Your task to perform on an android device: Go to accessibility settings Image 0: 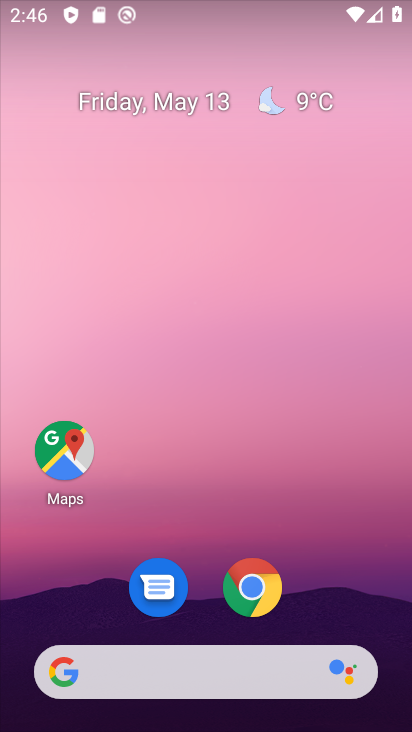
Step 0: drag from (322, 625) to (309, 248)
Your task to perform on an android device: Go to accessibility settings Image 1: 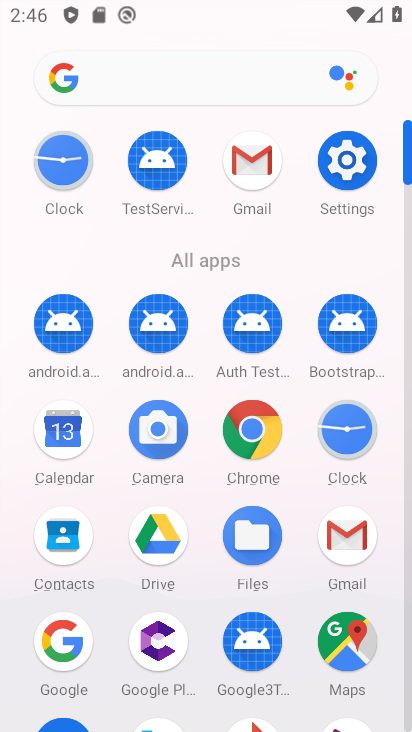
Step 1: click (340, 181)
Your task to perform on an android device: Go to accessibility settings Image 2: 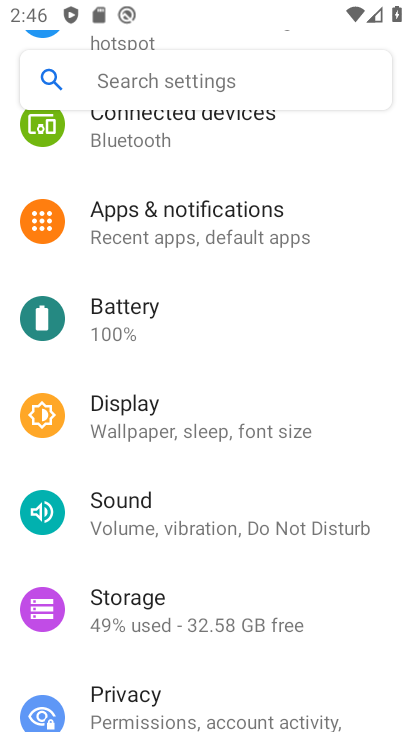
Step 2: drag from (225, 608) to (207, 186)
Your task to perform on an android device: Go to accessibility settings Image 3: 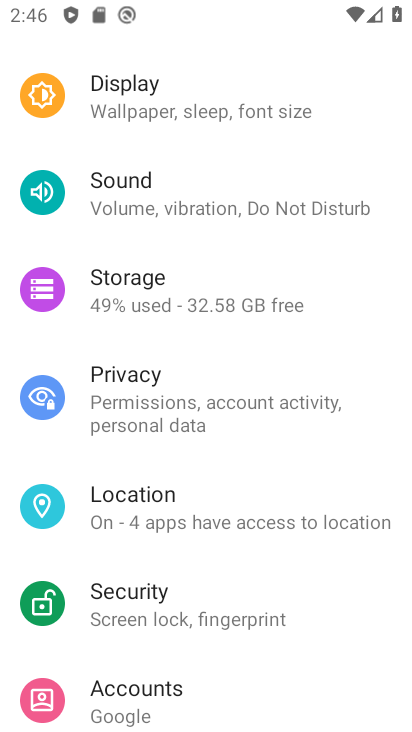
Step 3: drag from (206, 637) to (237, 155)
Your task to perform on an android device: Go to accessibility settings Image 4: 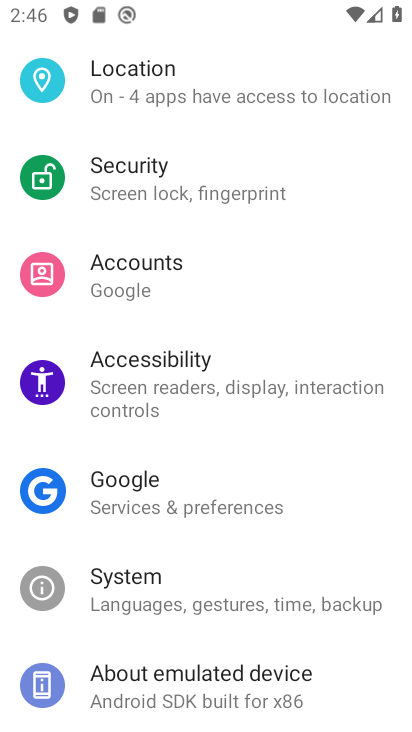
Step 4: click (167, 381)
Your task to perform on an android device: Go to accessibility settings Image 5: 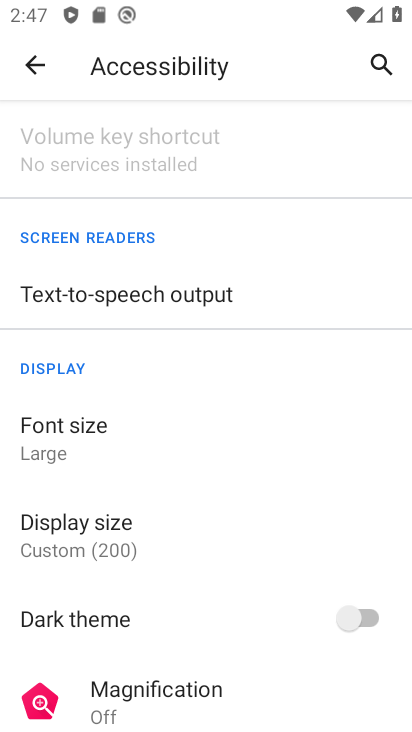
Step 5: task complete